Your task to perform on an android device: move a message to another label in the gmail app Image 0: 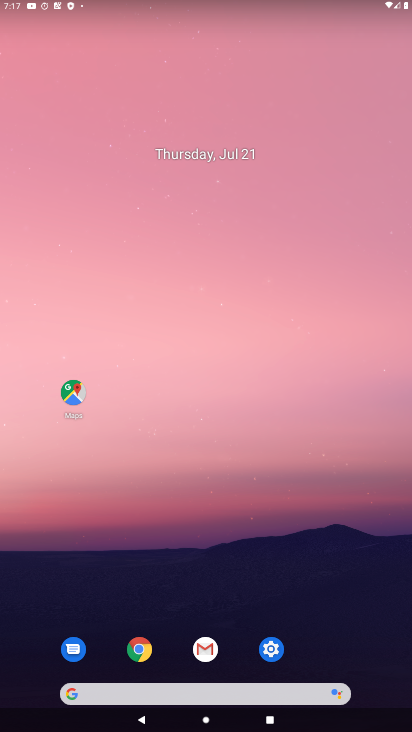
Step 0: click (220, 647)
Your task to perform on an android device: move a message to another label in the gmail app Image 1: 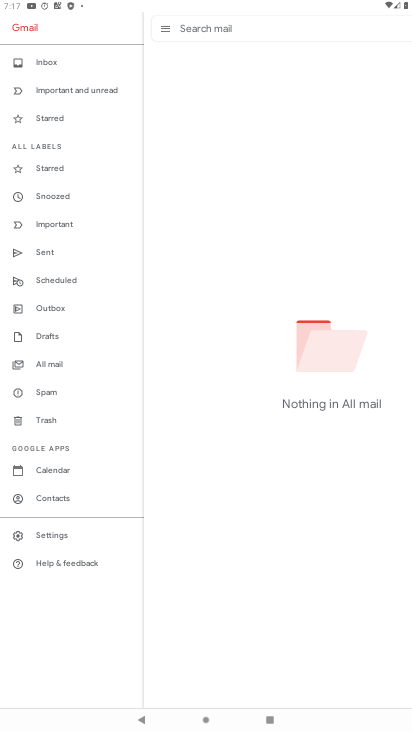
Step 1: click (49, 531)
Your task to perform on an android device: move a message to another label in the gmail app Image 2: 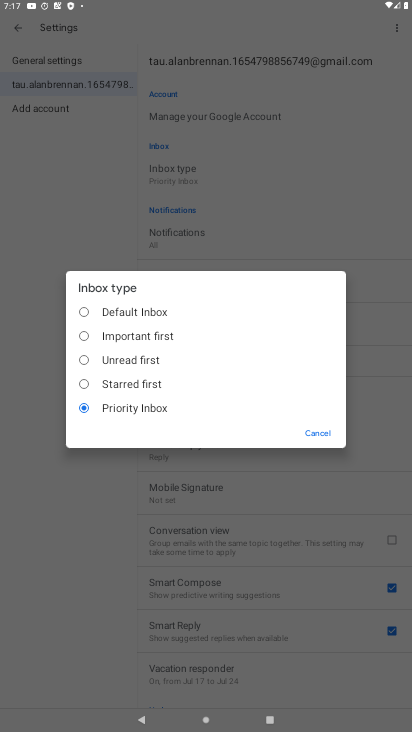
Step 2: click (310, 433)
Your task to perform on an android device: move a message to another label in the gmail app Image 3: 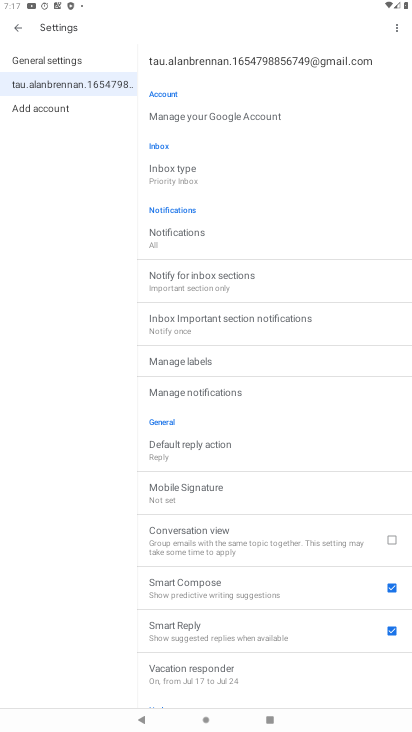
Step 3: click (196, 362)
Your task to perform on an android device: move a message to another label in the gmail app Image 4: 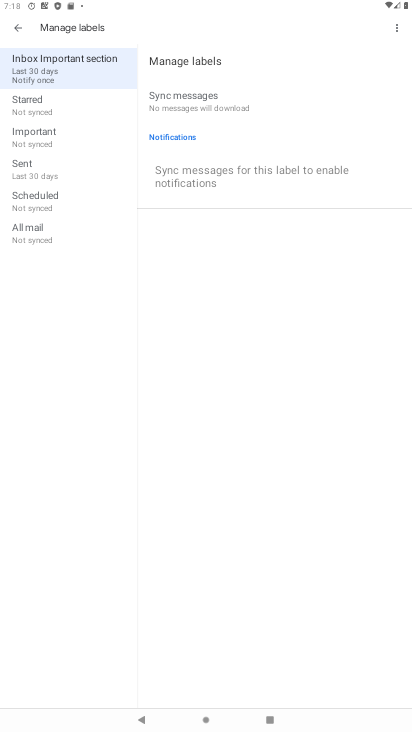
Step 4: task complete